Your task to perform on an android device: turn off javascript in the chrome app Image 0: 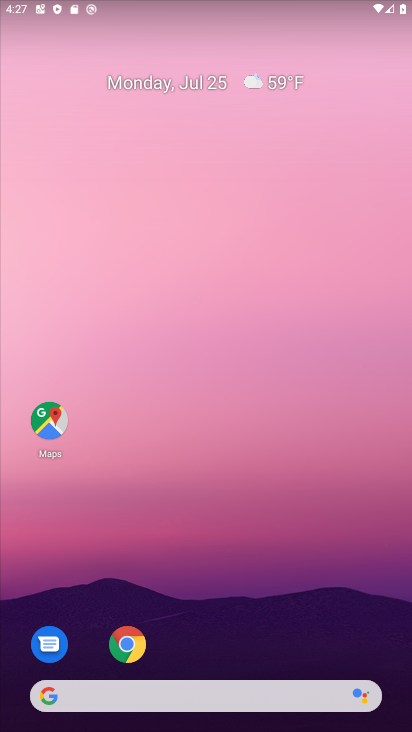
Step 0: click (132, 654)
Your task to perform on an android device: turn off javascript in the chrome app Image 1: 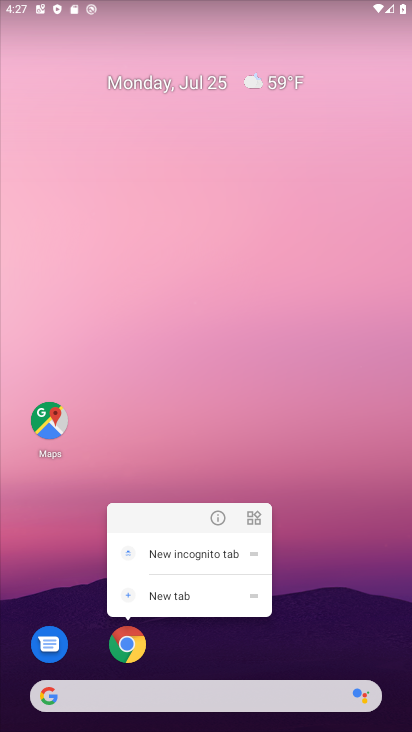
Step 1: click (123, 638)
Your task to perform on an android device: turn off javascript in the chrome app Image 2: 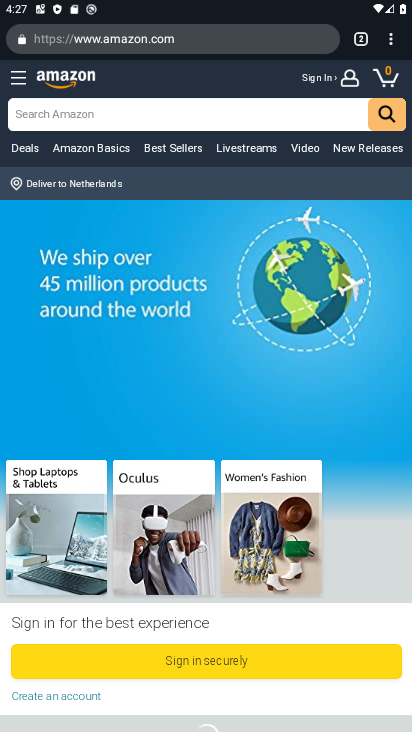
Step 2: click (397, 40)
Your task to perform on an android device: turn off javascript in the chrome app Image 3: 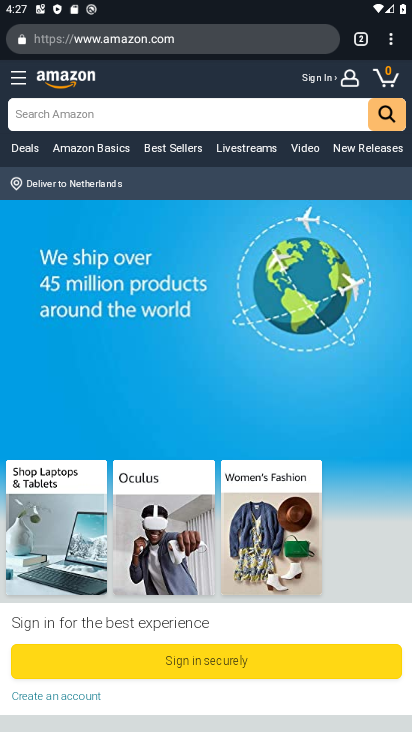
Step 3: click (385, 35)
Your task to perform on an android device: turn off javascript in the chrome app Image 4: 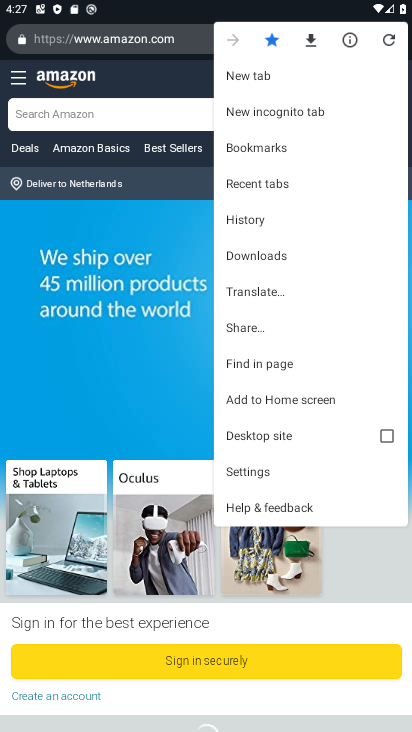
Step 4: click (260, 467)
Your task to perform on an android device: turn off javascript in the chrome app Image 5: 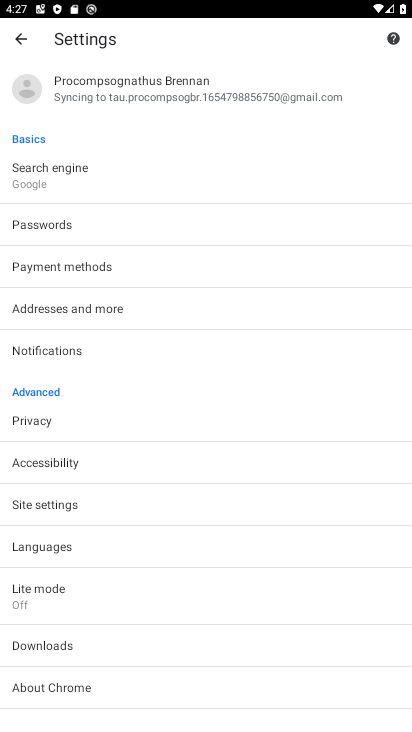
Step 5: click (63, 501)
Your task to perform on an android device: turn off javascript in the chrome app Image 6: 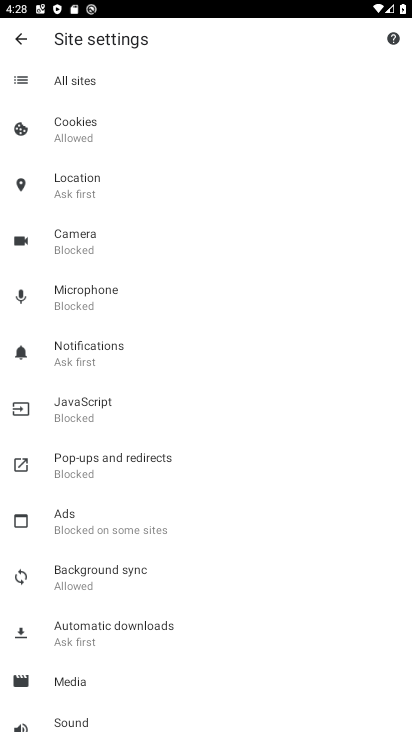
Step 6: click (99, 402)
Your task to perform on an android device: turn off javascript in the chrome app Image 7: 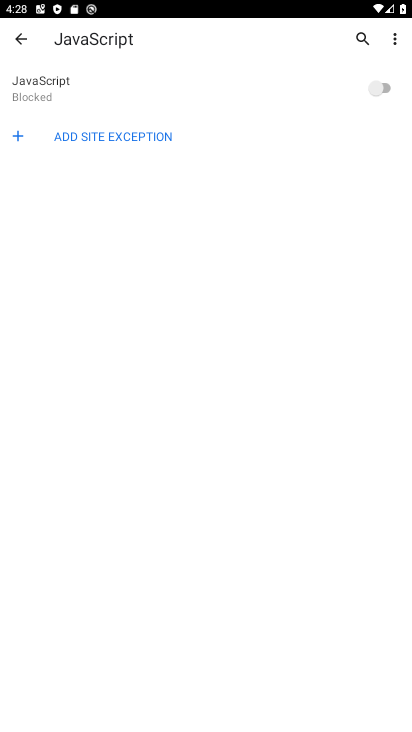
Step 7: task complete